Your task to perform on an android device: snooze an email in the gmail app Image 0: 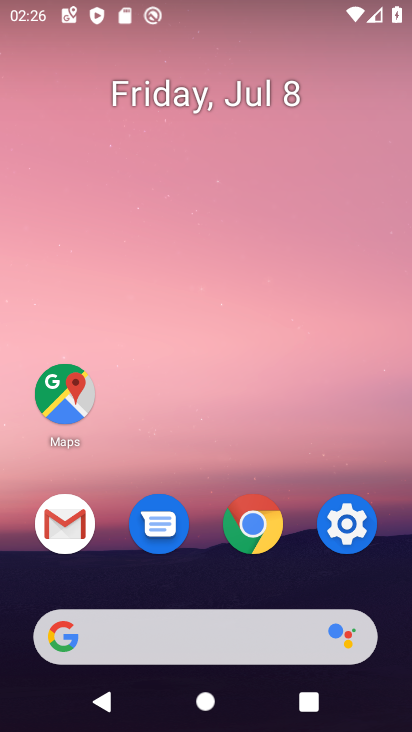
Step 0: click (72, 523)
Your task to perform on an android device: snooze an email in the gmail app Image 1: 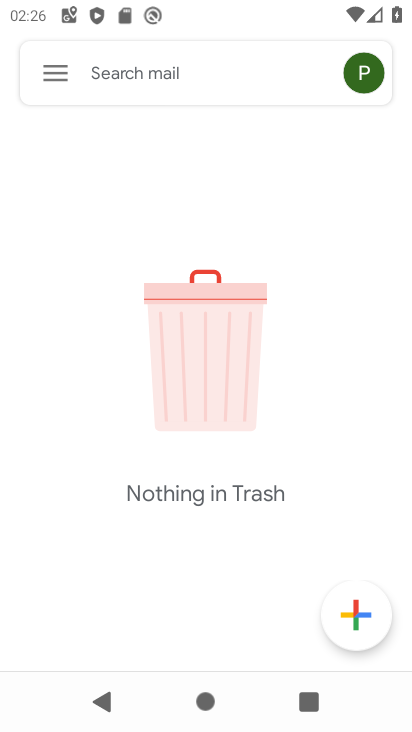
Step 1: click (30, 62)
Your task to perform on an android device: snooze an email in the gmail app Image 2: 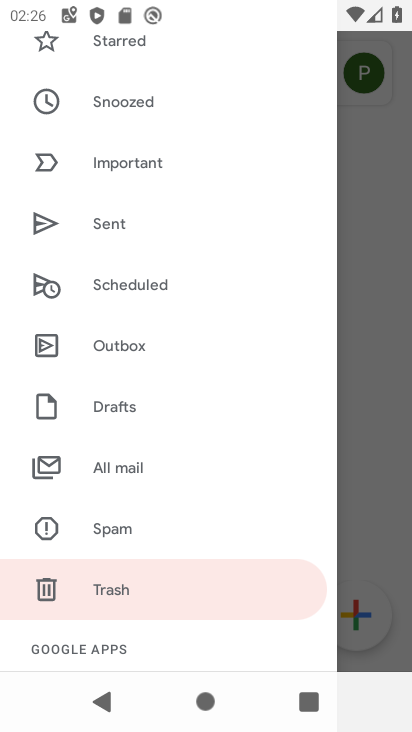
Step 2: click (135, 460)
Your task to perform on an android device: snooze an email in the gmail app Image 3: 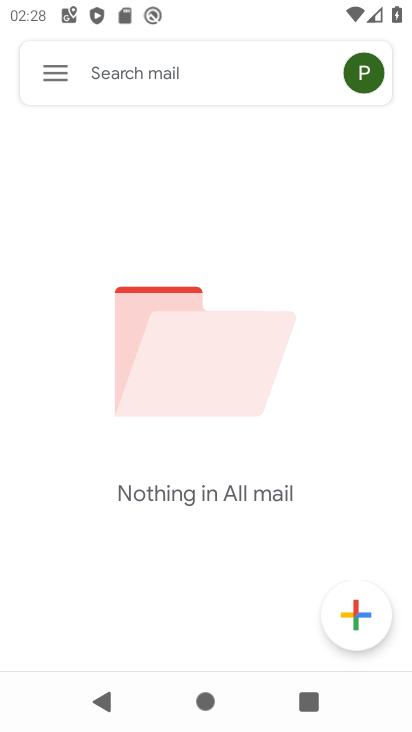
Step 3: task complete